Your task to perform on an android device: uninstall "File Manager" Image 0: 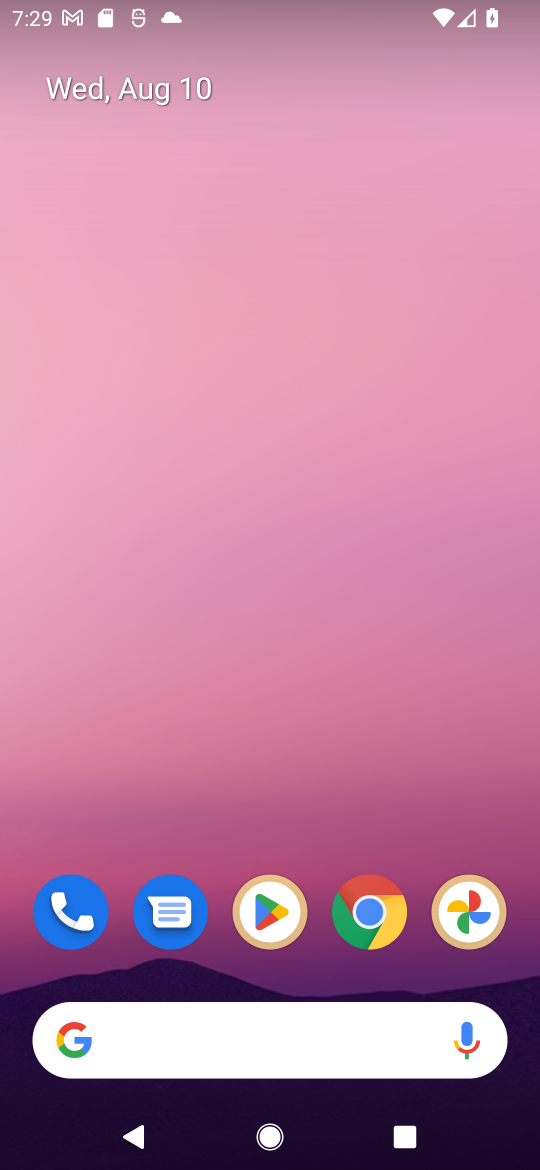
Step 0: drag from (524, 981) to (333, 111)
Your task to perform on an android device: uninstall "File Manager" Image 1: 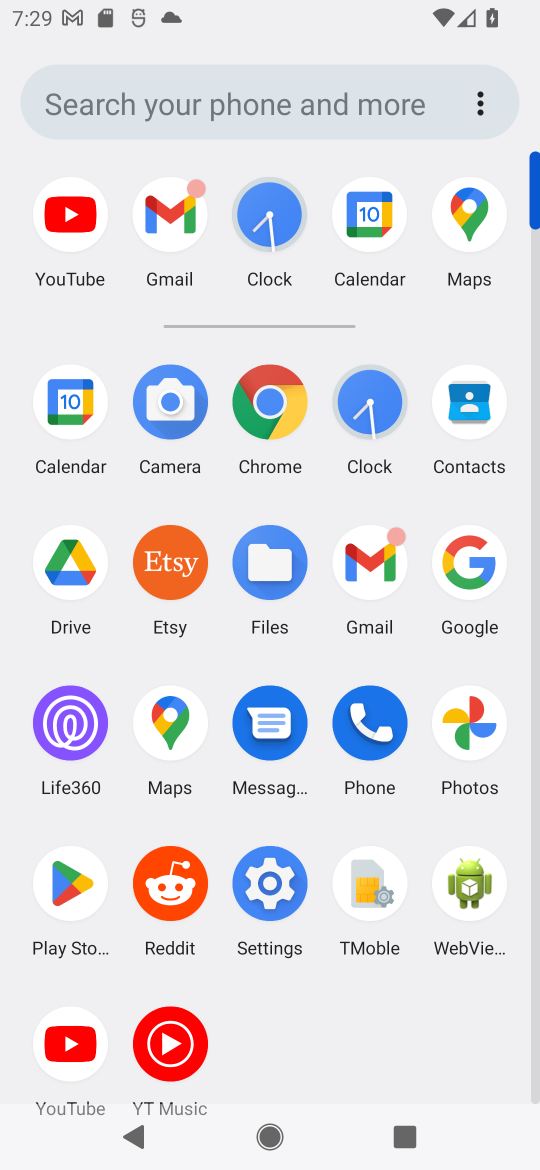
Step 1: click (63, 897)
Your task to perform on an android device: uninstall "File Manager" Image 2: 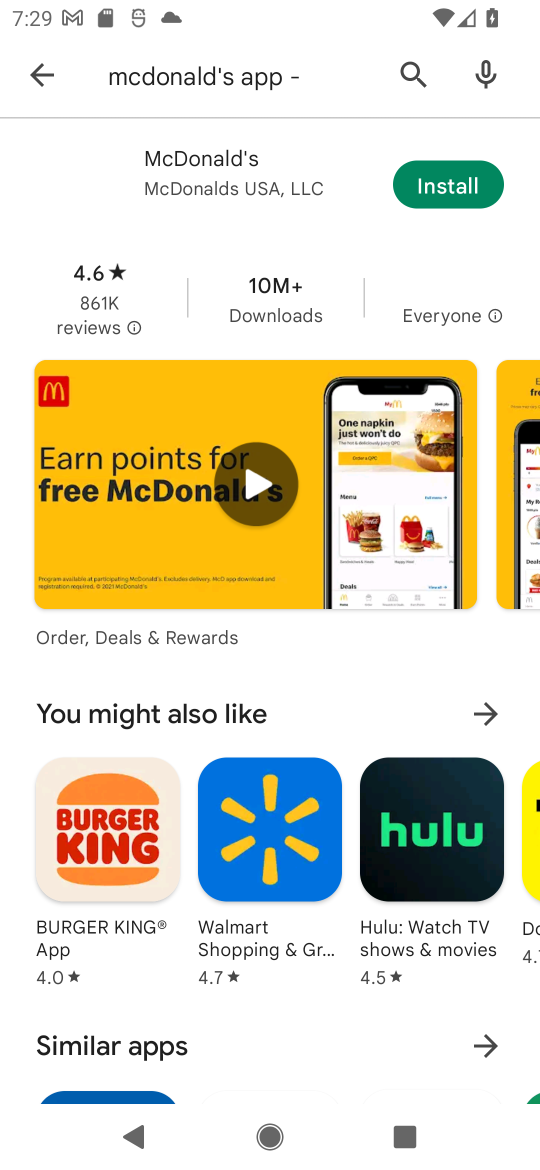
Step 2: press back button
Your task to perform on an android device: uninstall "File Manager" Image 3: 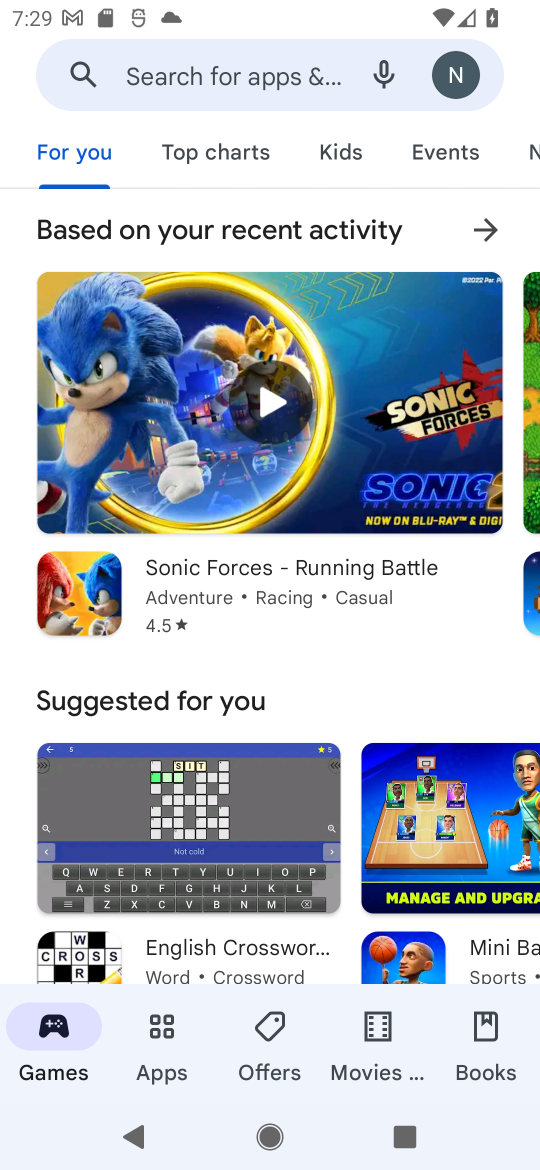
Step 3: click (154, 74)
Your task to perform on an android device: uninstall "File Manager" Image 4: 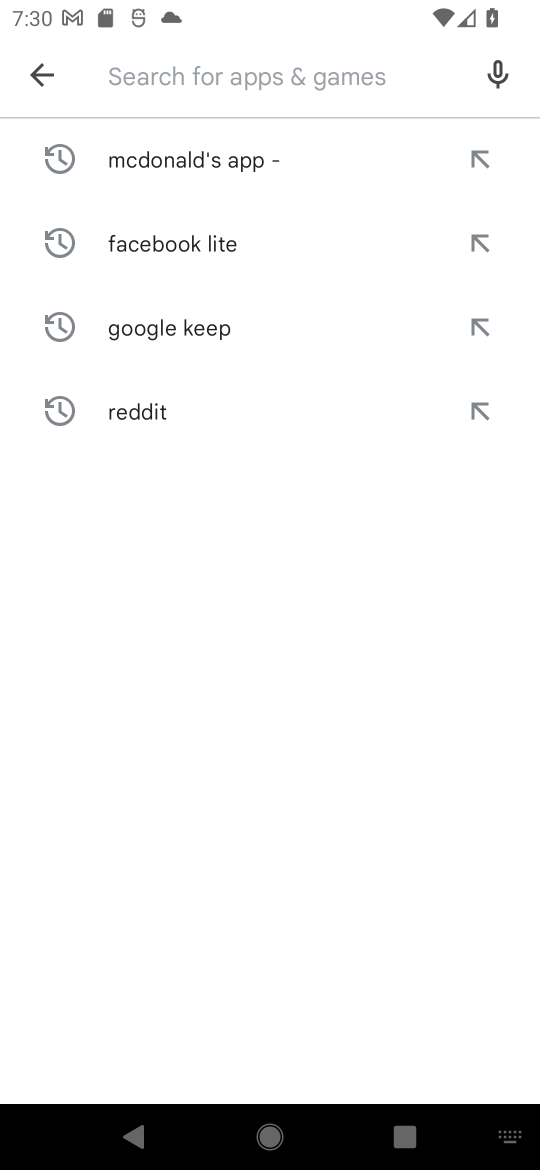
Step 4: type "File Manager"
Your task to perform on an android device: uninstall "File Manager" Image 5: 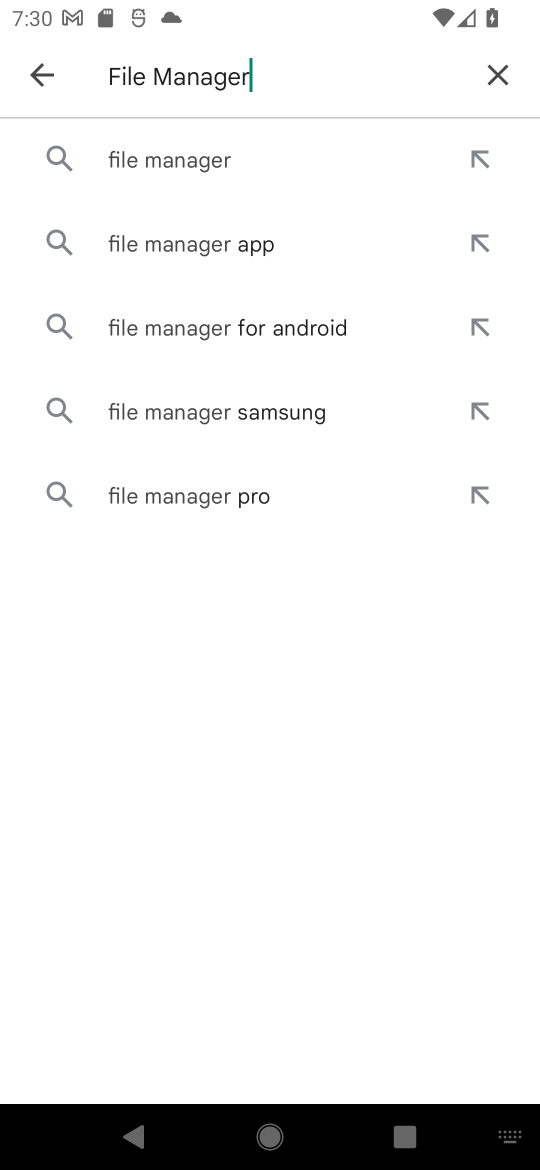
Step 5: click (142, 153)
Your task to perform on an android device: uninstall "File Manager" Image 6: 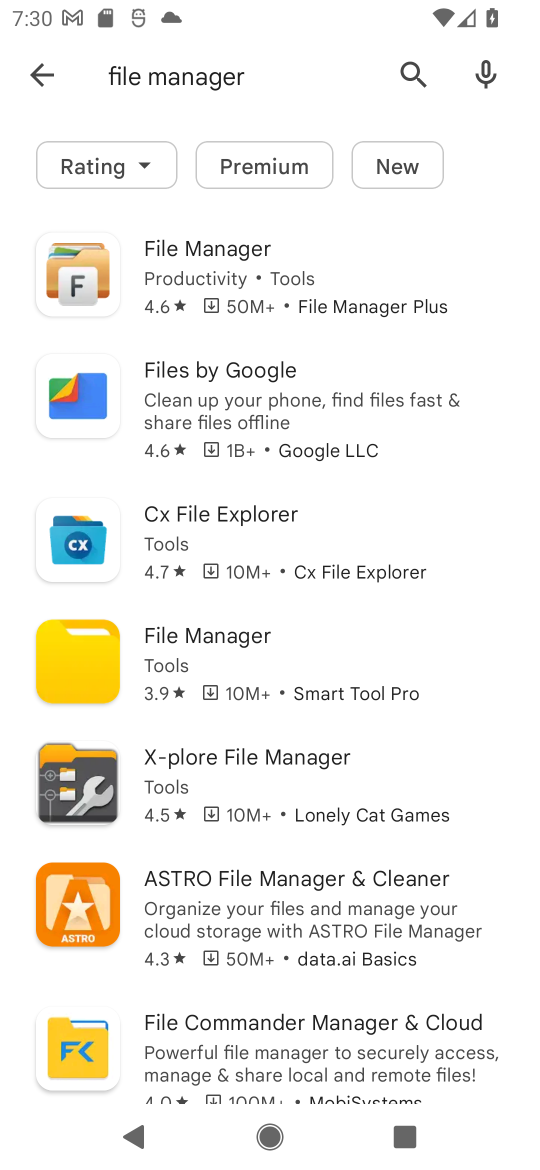
Step 6: task complete